Your task to perform on an android device: Go to settings Image 0: 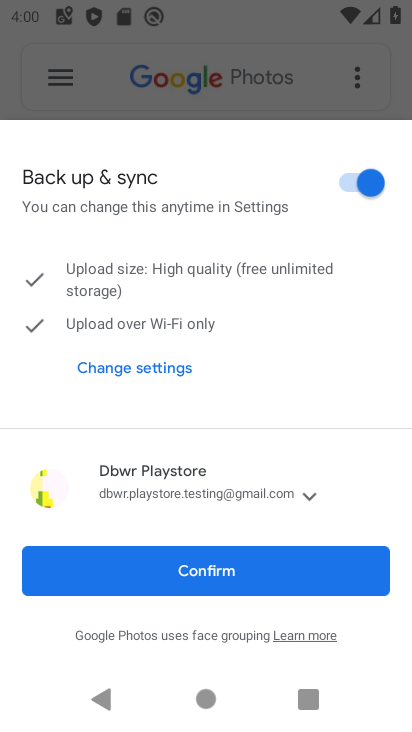
Step 0: press home button
Your task to perform on an android device: Go to settings Image 1: 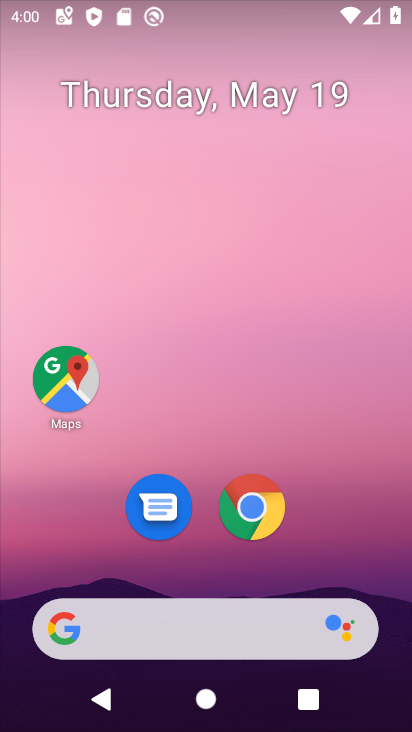
Step 1: drag from (397, 657) to (376, 416)
Your task to perform on an android device: Go to settings Image 2: 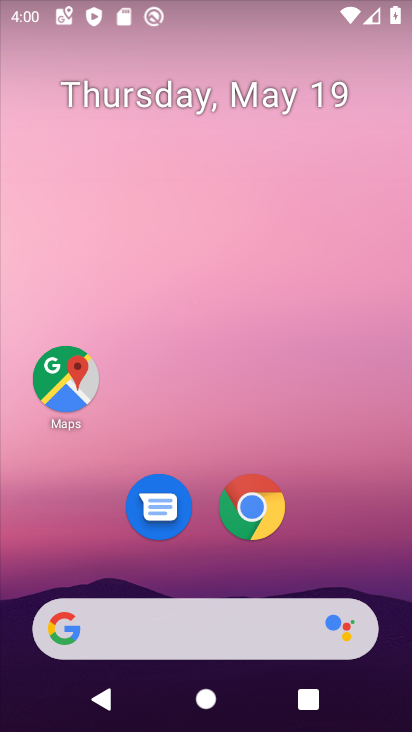
Step 2: drag from (387, 692) to (387, 358)
Your task to perform on an android device: Go to settings Image 3: 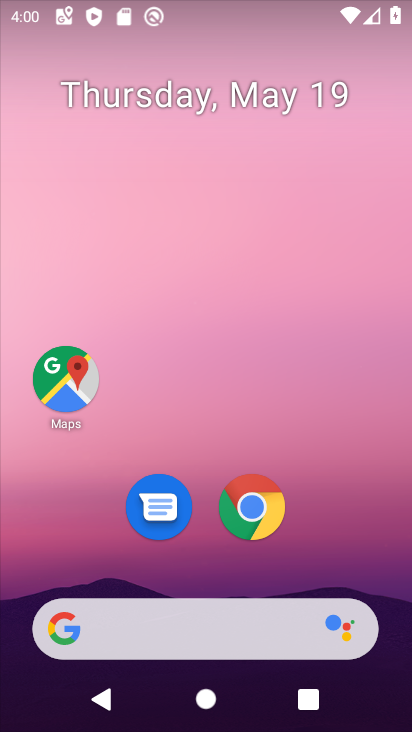
Step 3: drag from (381, 694) to (383, 289)
Your task to perform on an android device: Go to settings Image 4: 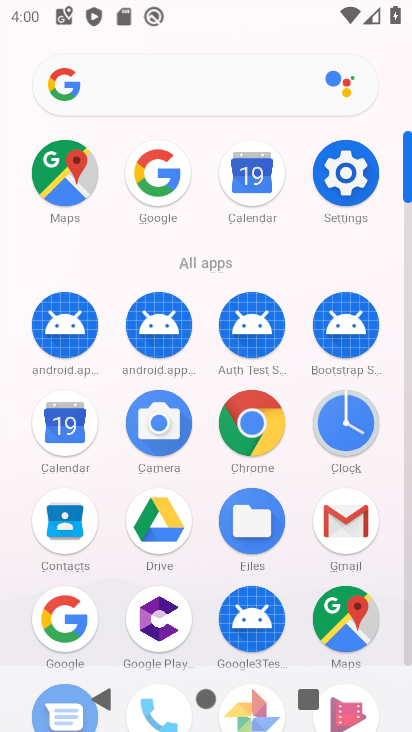
Step 4: click (351, 170)
Your task to perform on an android device: Go to settings Image 5: 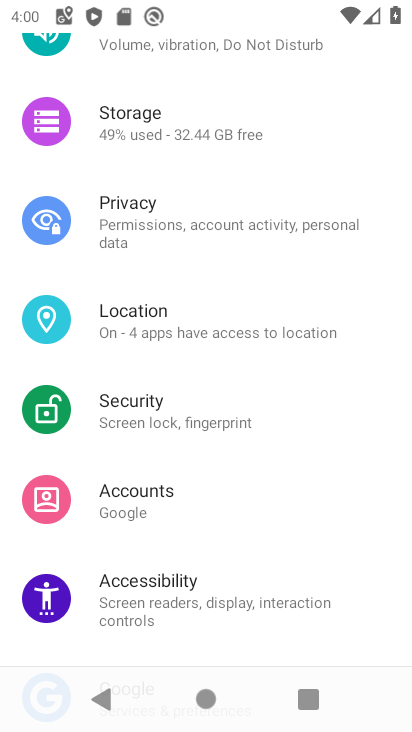
Step 5: task complete